Your task to perform on an android device: Open privacy settings Image 0: 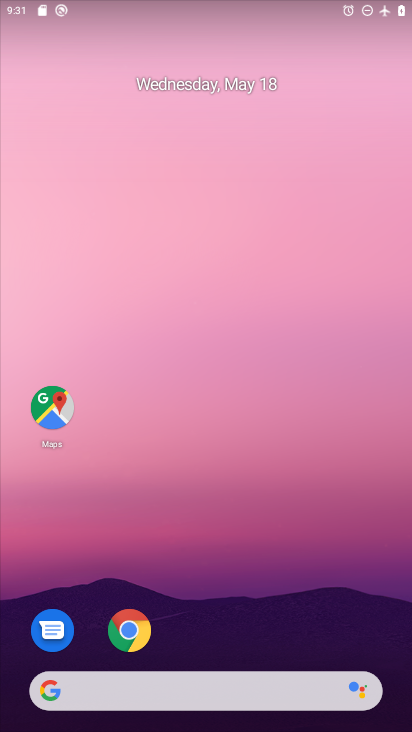
Step 0: drag from (201, 664) to (142, 147)
Your task to perform on an android device: Open privacy settings Image 1: 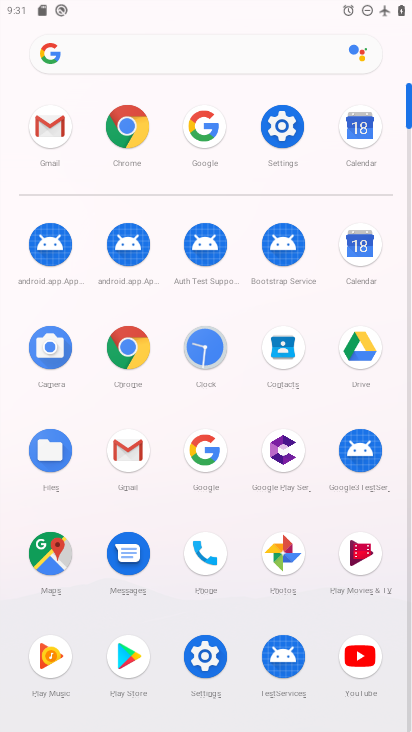
Step 1: click (293, 113)
Your task to perform on an android device: Open privacy settings Image 2: 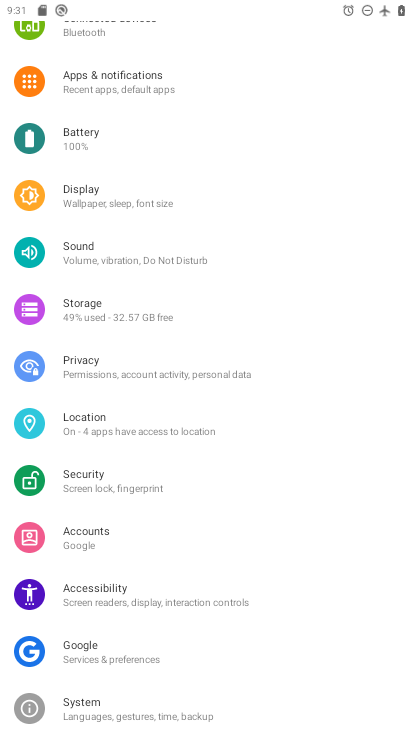
Step 2: click (109, 374)
Your task to perform on an android device: Open privacy settings Image 3: 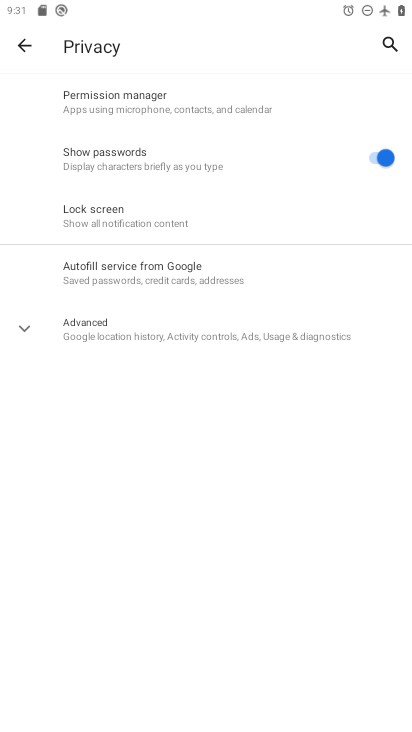
Step 3: click (100, 342)
Your task to perform on an android device: Open privacy settings Image 4: 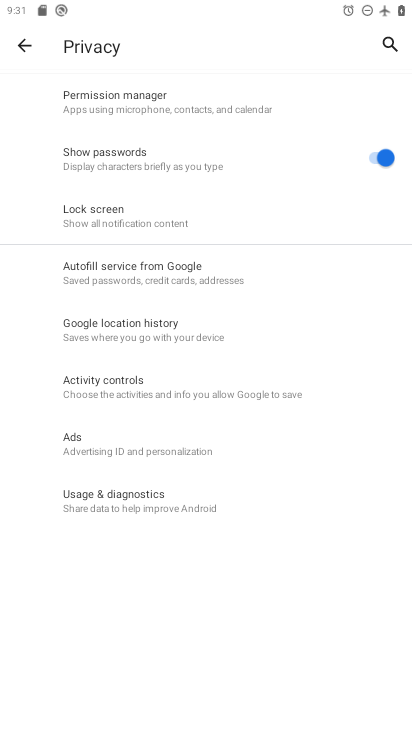
Step 4: task complete